Your task to perform on an android device: Go to sound settings Image 0: 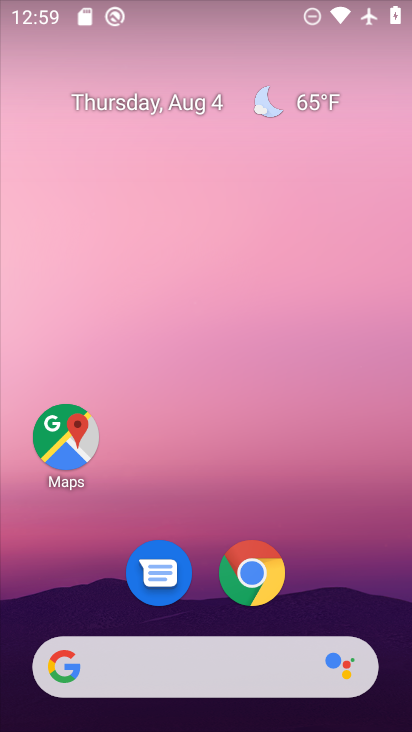
Step 0: drag from (335, 531) to (306, 102)
Your task to perform on an android device: Go to sound settings Image 1: 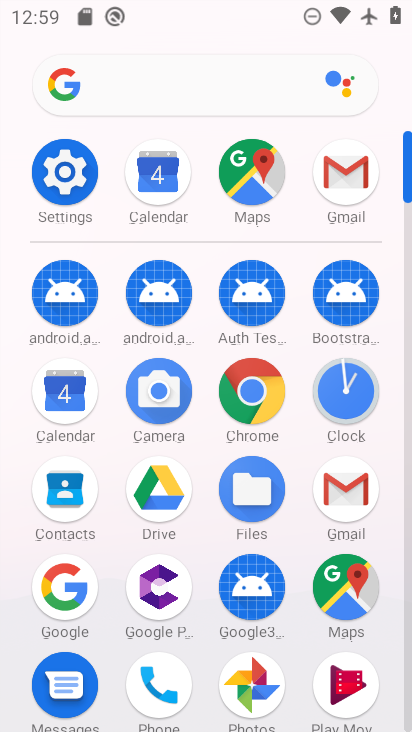
Step 1: click (58, 167)
Your task to perform on an android device: Go to sound settings Image 2: 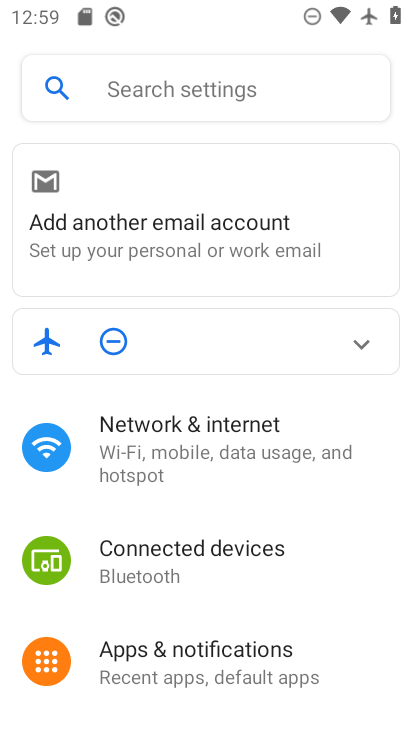
Step 2: drag from (232, 622) to (251, 159)
Your task to perform on an android device: Go to sound settings Image 3: 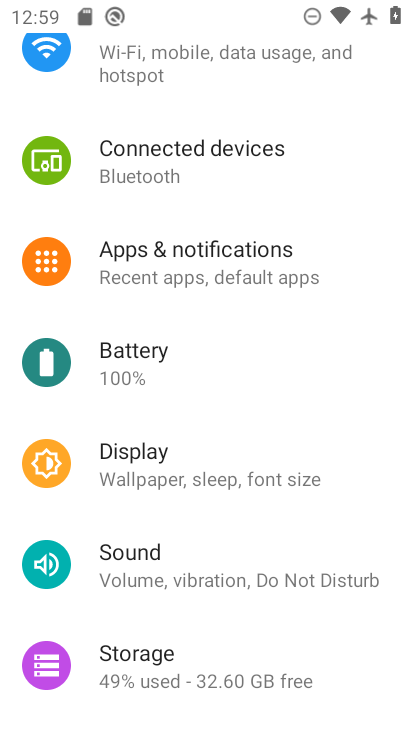
Step 3: click (174, 548)
Your task to perform on an android device: Go to sound settings Image 4: 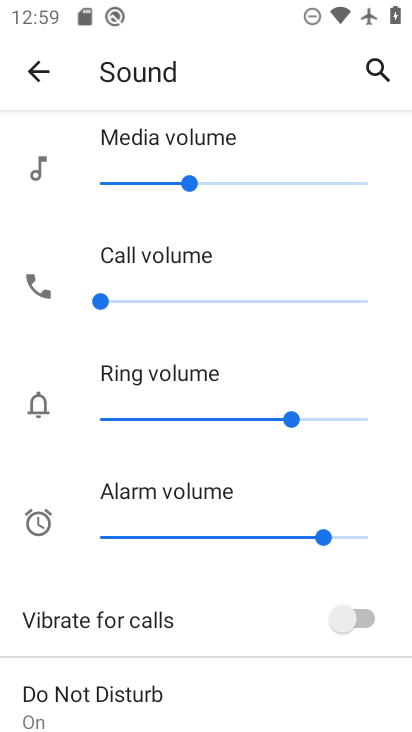
Step 4: task complete